Your task to perform on an android device: clear history in the chrome app Image 0: 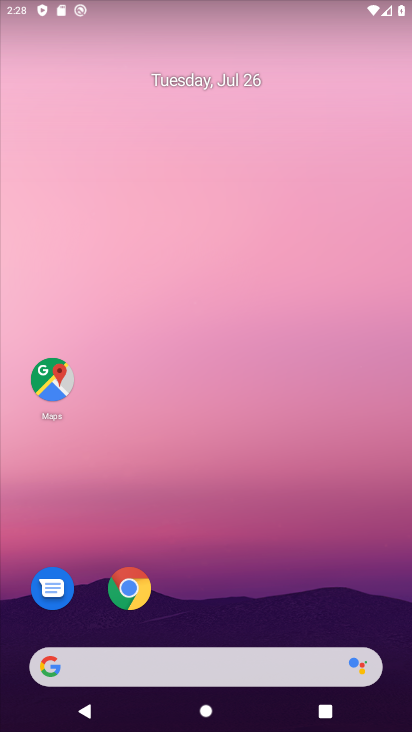
Step 0: drag from (273, 637) to (280, 166)
Your task to perform on an android device: clear history in the chrome app Image 1: 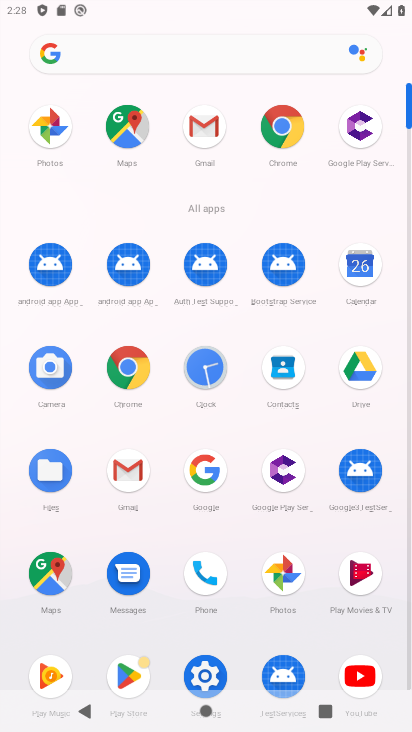
Step 1: click (282, 117)
Your task to perform on an android device: clear history in the chrome app Image 2: 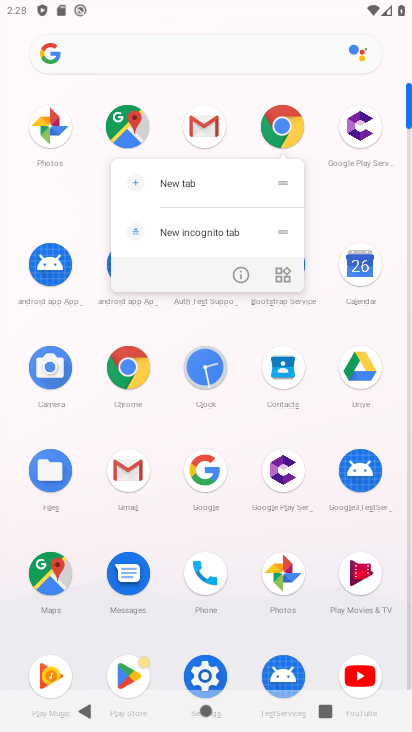
Step 2: click (285, 129)
Your task to perform on an android device: clear history in the chrome app Image 3: 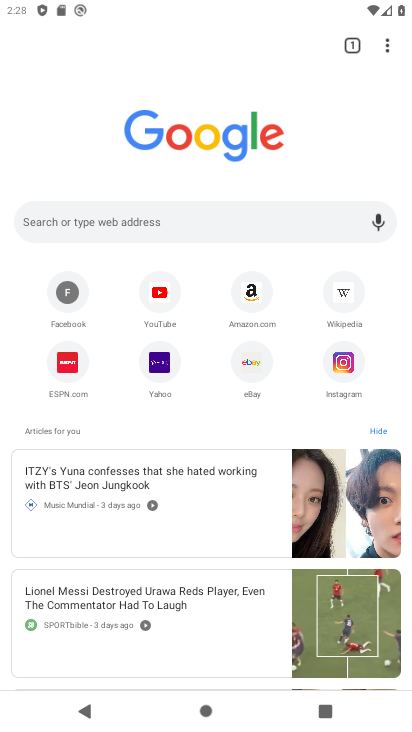
Step 3: task complete